Your task to perform on an android device: Go to Yahoo.com Image 0: 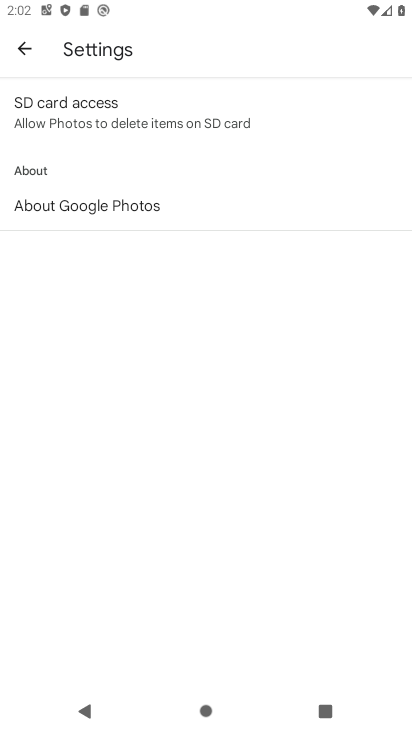
Step 0: press home button
Your task to perform on an android device: Go to Yahoo.com Image 1: 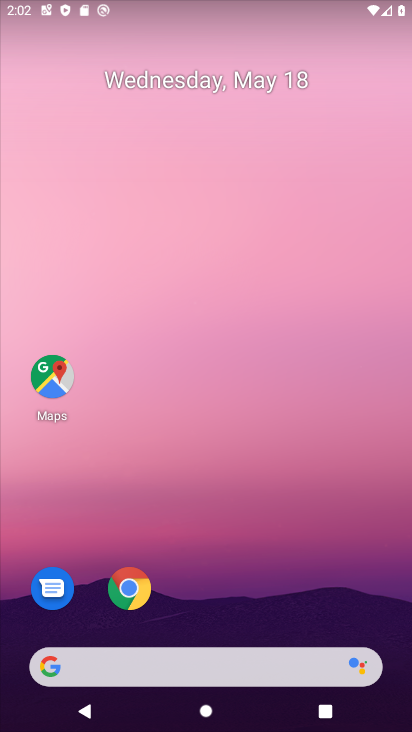
Step 1: drag from (323, 575) to (303, 86)
Your task to perform on an android device: Go to Yahoo.com Image 2: 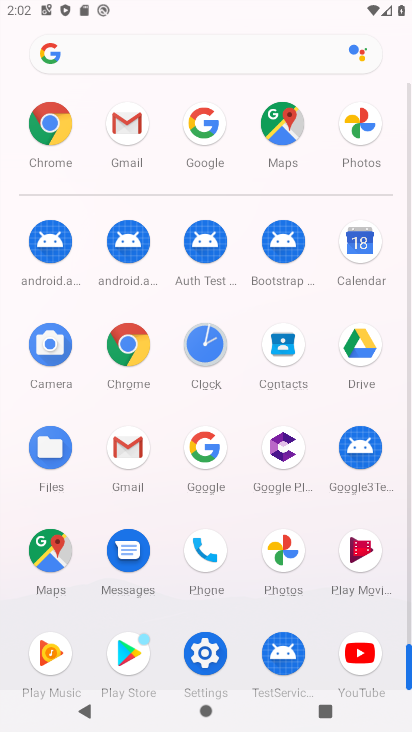
Step 2: click (142, 360)
Your task to perform on an android device: Go to Yahoo.com Image 3: 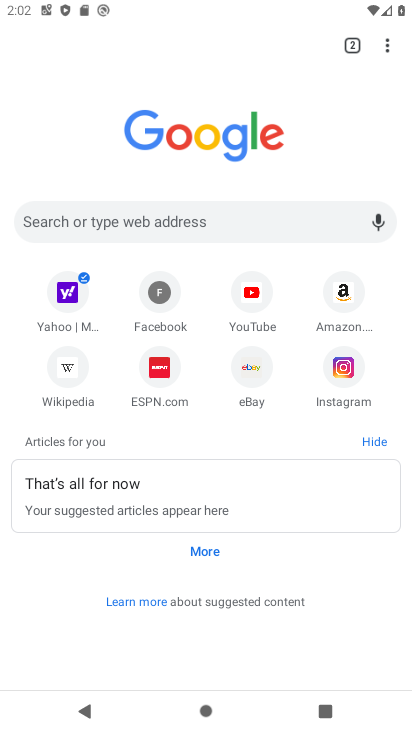
Step 3: click (81, 323)
Your task to perform on an android device: Go to Yahoo.com Image 4: 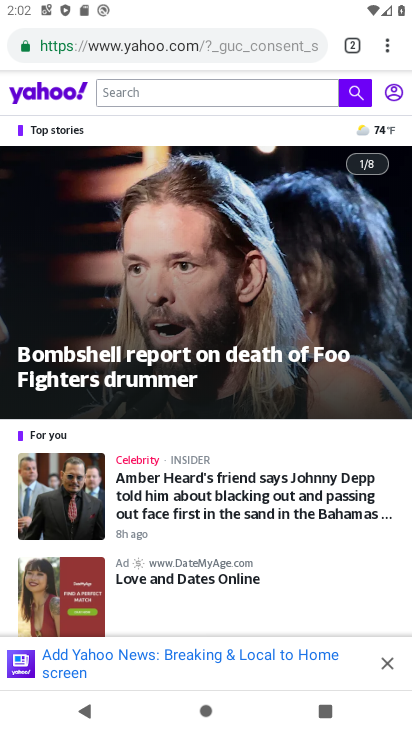
Step 4: task complete